Your task to perform on an android device: snooze an email in the gmail app Image 0: 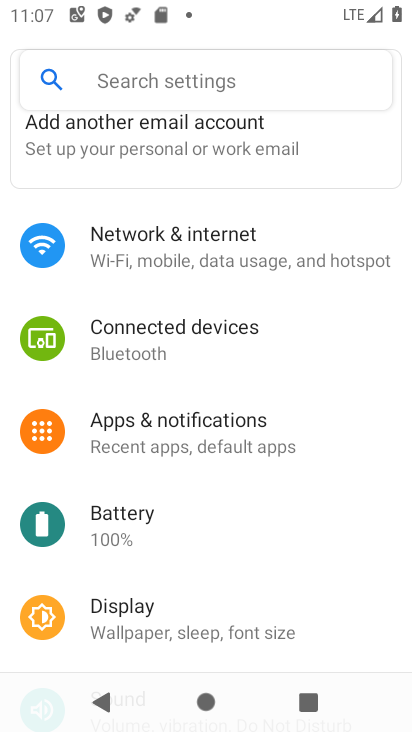
Step 0: press home button
Your task to perform on an android device: snooze an email in the gmail app Image 1: 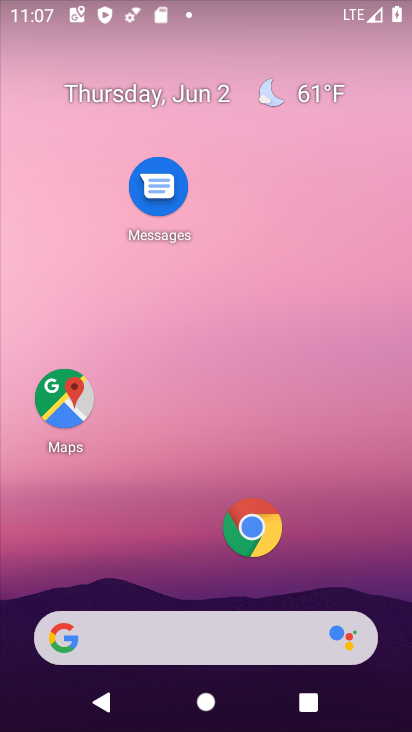
Step 1: drag from (200, 582) to (234, 51)
Your task to perform on an android device: snooze an email in the gmail app Image 2: 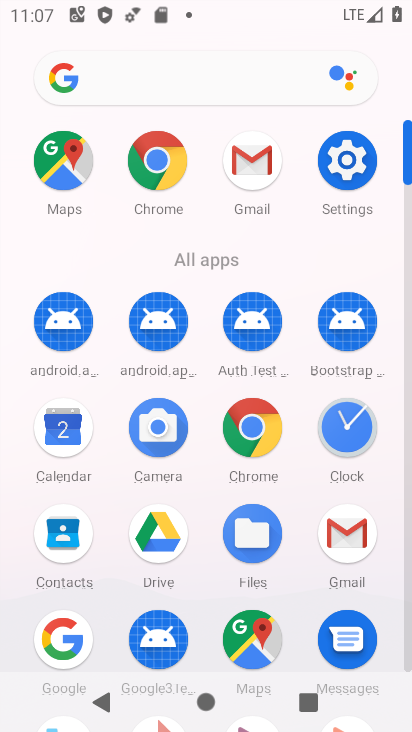
Step 2: click (253, 149)
Your task to perform on an android device: snooze an email in the gmail app Image 3: 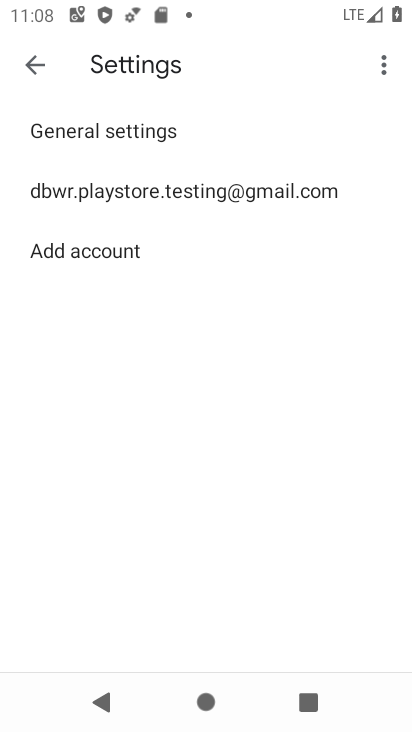
Step 3: click (38, 65)
Your task to perform on an android device: snooze an email in the gmail app Image 4: 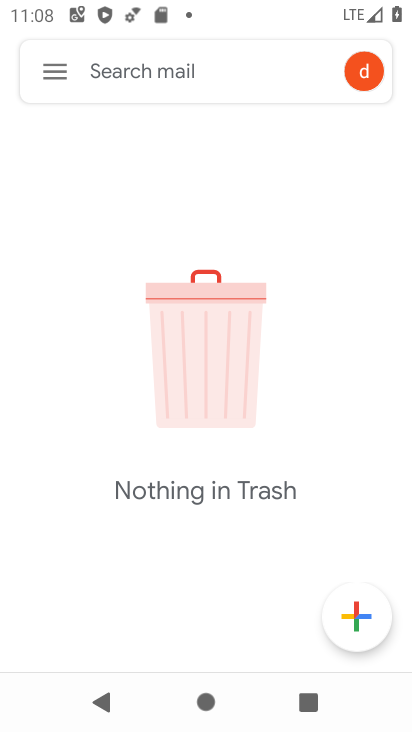
Step 4: click (52, 71)
Your task to perform on an android device: snooze an email in the gmail app Image 5: 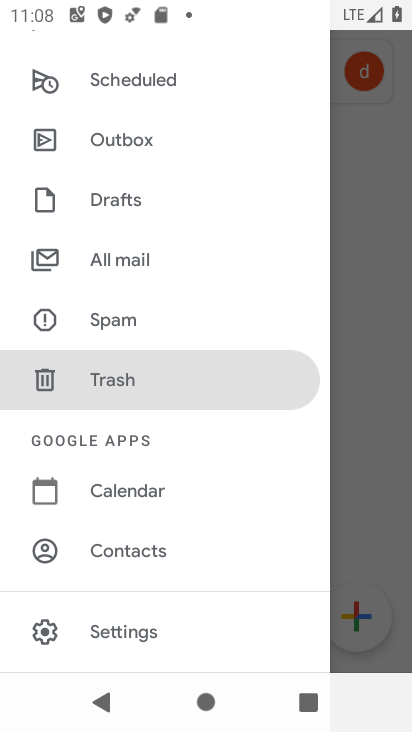
Step 5: click (76, 255)
Your task to perform on an android device: snooze an email in the gmail app Image 6: 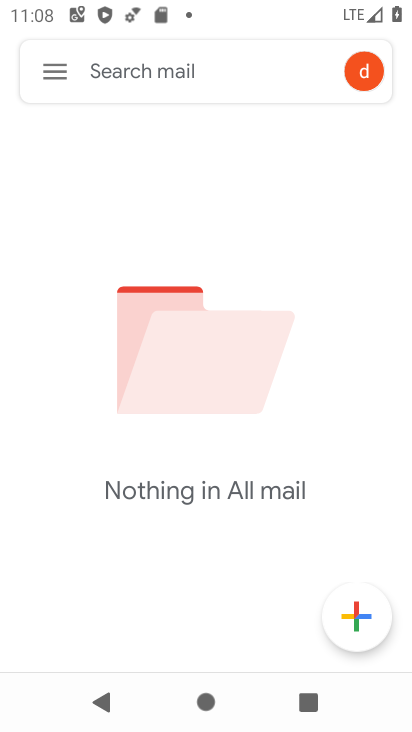
Step 6: task complete